Your task to perform on an android device: toggle sleep mode Image 0: 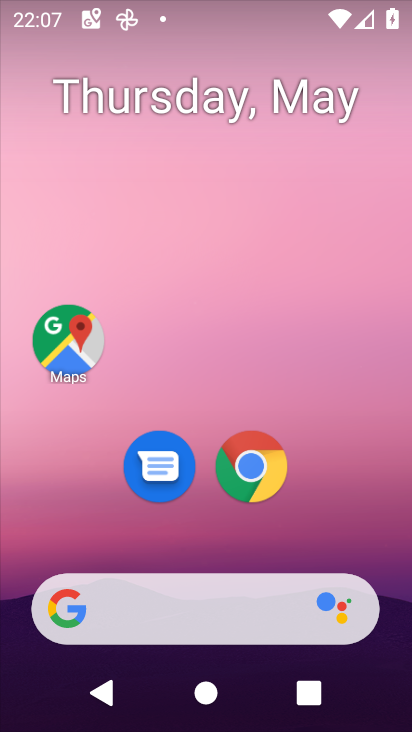
Step 0: drag from (317, 528) to (296, 174)
Your task to perform on an android device: toggle sleep mode Image 1: 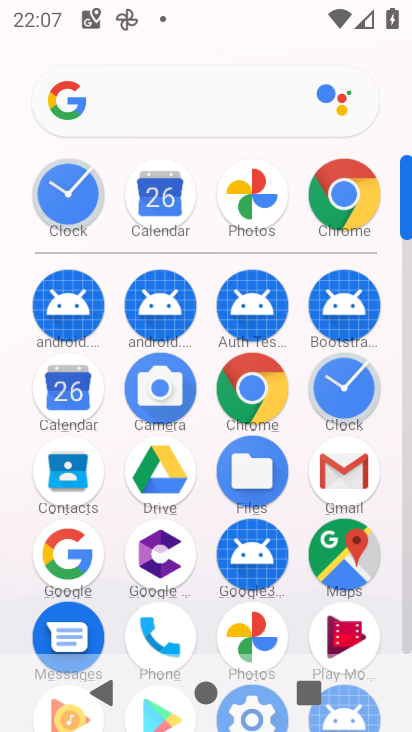
Step 1: click (410, 640)
Your task to perform on an android device: toggle sleep mode Image 2: 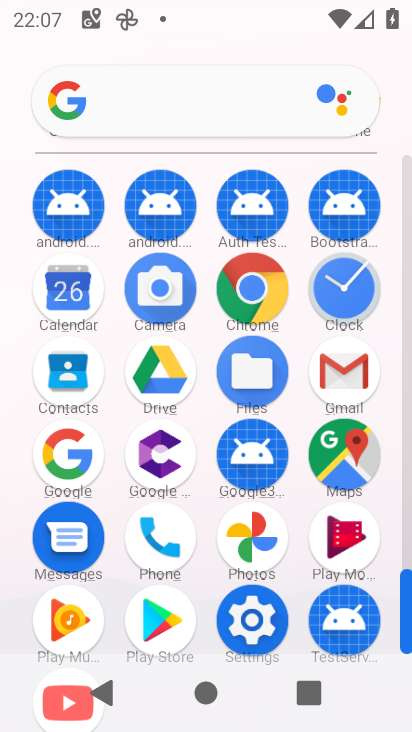
Step 2: click (237, 629)
Your task to perform on an android device: toggle sleep mode Image 3: 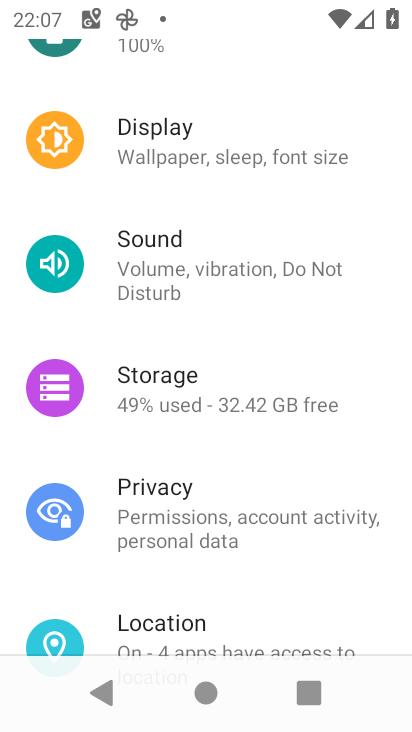
Step 3: click (264, 175)
Your task to perform on an android device: toggle sleep mode Image 4: 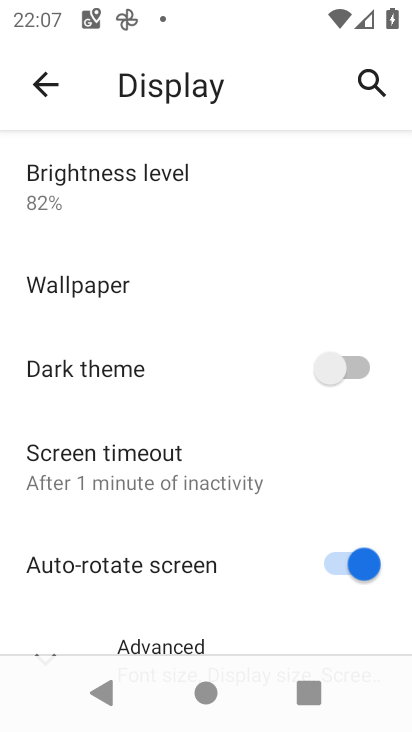
Step 4: drag from (211, 586) to (223, 201)
Your task to perform on an android device: toggle sleep mode Image 5: 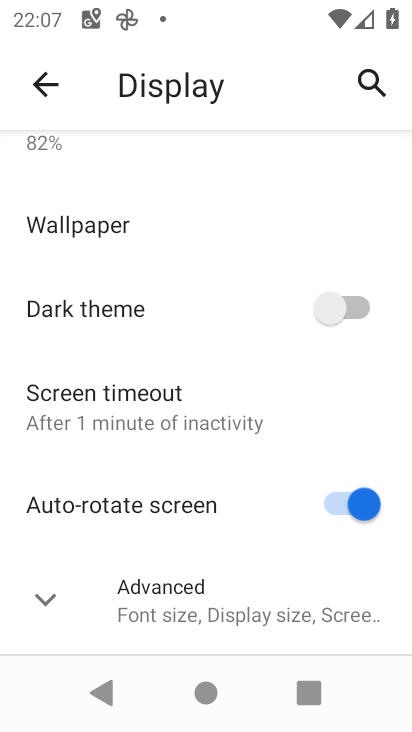
Step 5: drag from (184, 491) to (207, 201)
Your task to perform on an android device: toggle sleep mode Image 6: 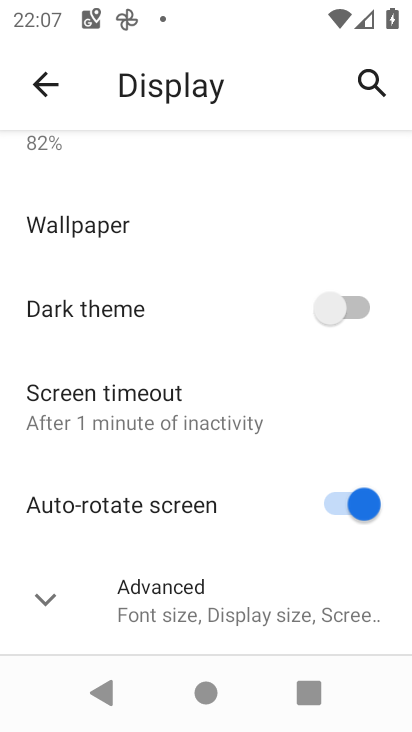
Step 6: click (227, 576)
Your task to perform on an android device: toggle sleep mode Image 7: 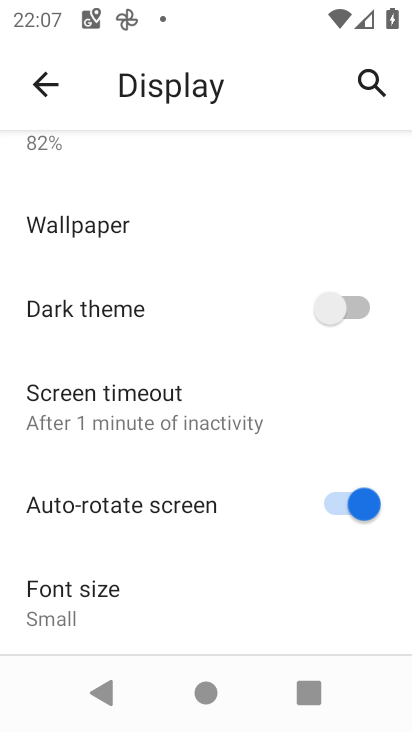
Step 7: task complete